Your task to perform on an android device: Open display settings Image 0: 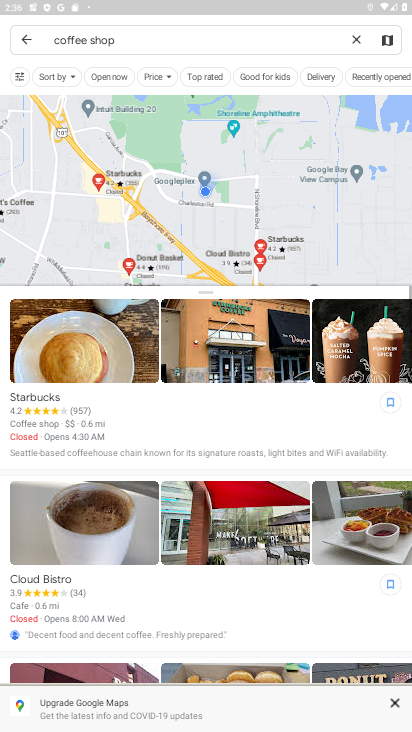
Step 0: press home button
Your task to perform on an android device: Open display settings Image 1: 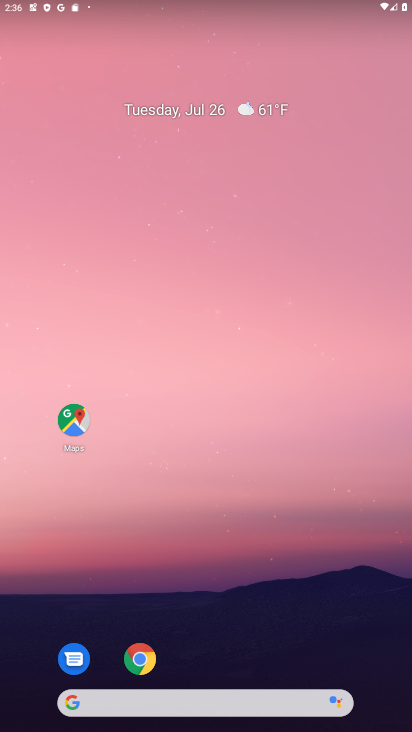
Step 1: drag from (352, 447) to (350, 199)
Your task to perform on an android device: Open display settings Image 2: 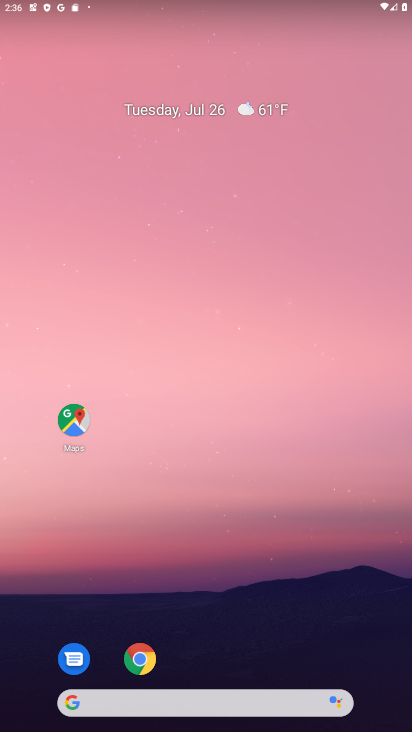
Step 2: drag from (388, 717) to (336, 143)
Your task to perform on an android device: Open display settings Image 3: 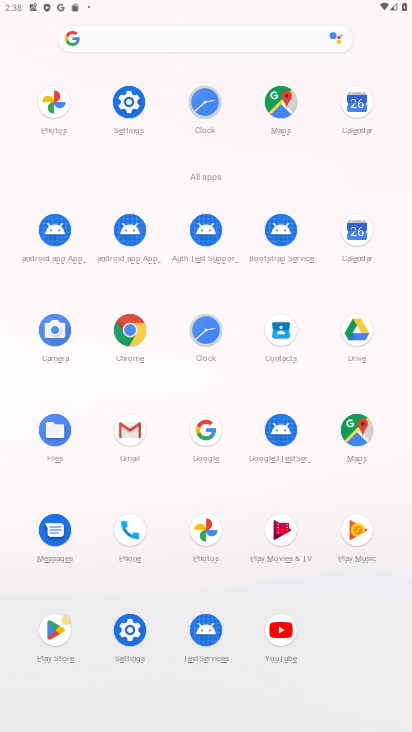
Step 3: click (121, 103)
Your task to perform on an android device: Open display settings Image 4: 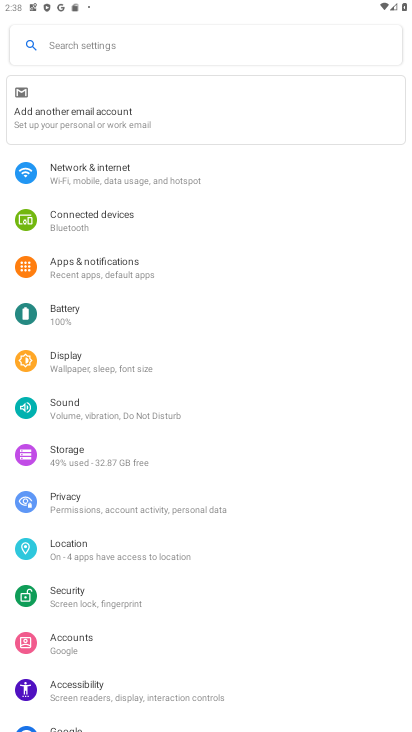
Step 4: click (105, 354)
Your task to perform on an android device: Open display settings Image 5: 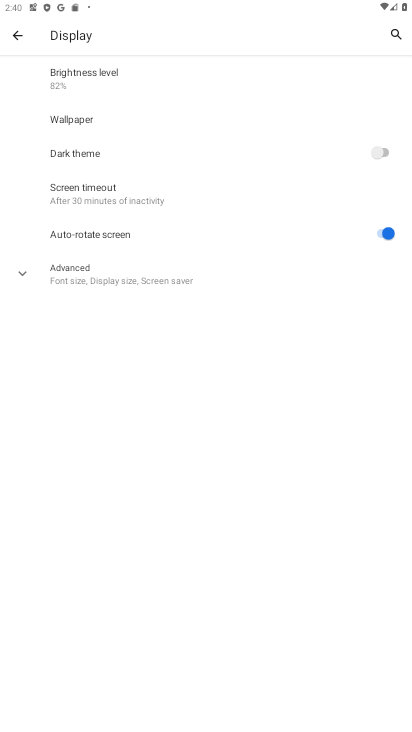
Step 5: task complete